Your task to perform on an android device: show emergency info Image 0: 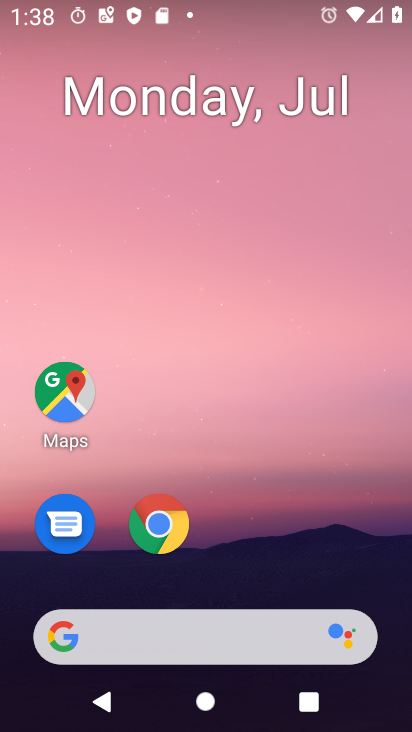
Step 0: press home button
Your task to perform on an android device: show emergency info Image 1: 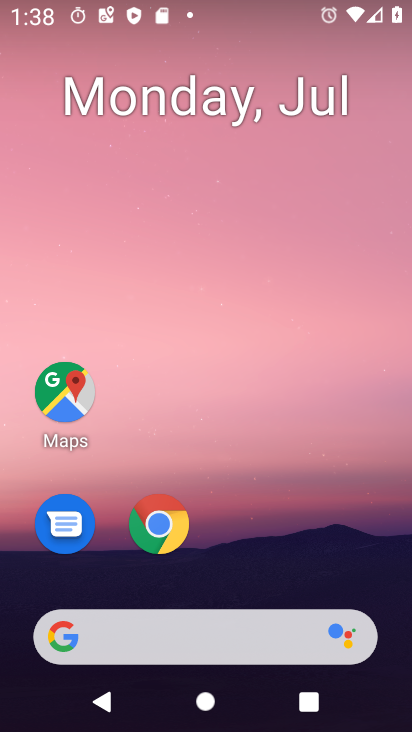
Step 1: drag from (309, 550) to (301, 157)
Your task to perform on an android device: show emergency info Image 2: 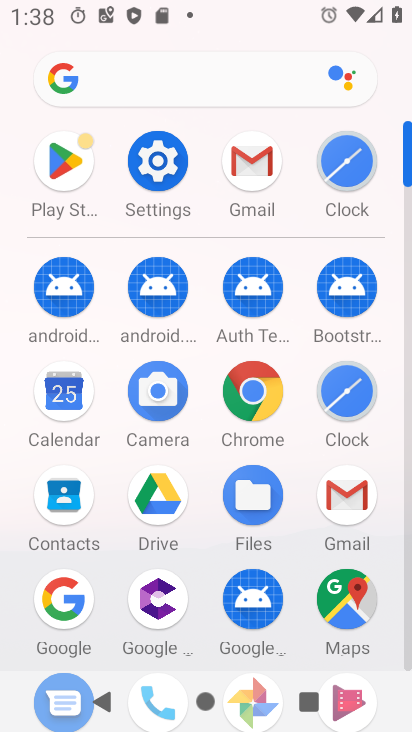
Step 2: click (160, 149)
Your task to perform on an android device: show emergency info Image 3: 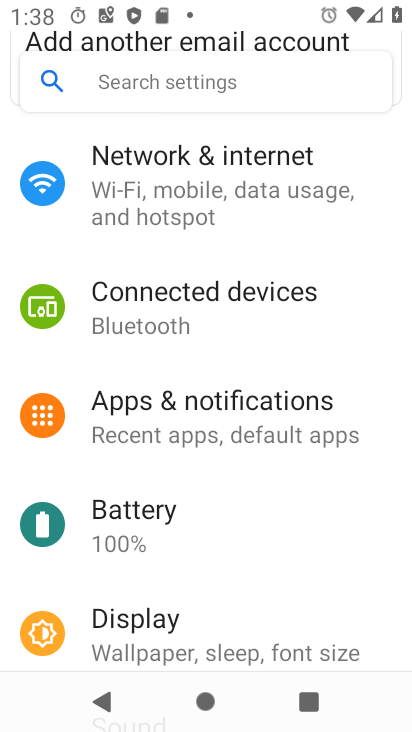
Step 3: drag from (205, 577) to (411, 151)
Your task to perform on an android device: show emergency info Image 4: 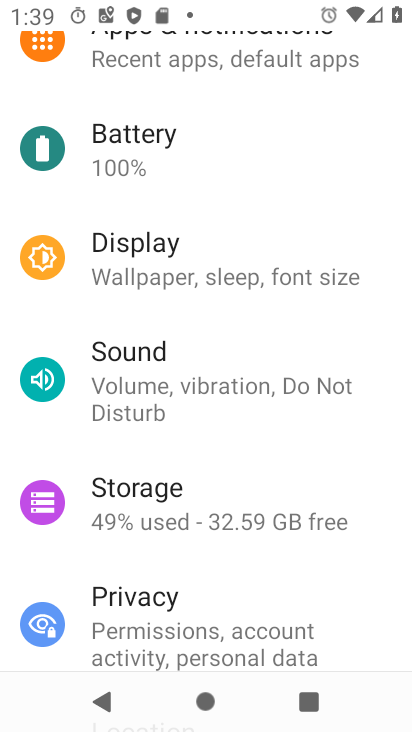
Step 4: drag from (167, 574) to (197, 192)
Your task to perform on an android device: show emergency info Image 5: 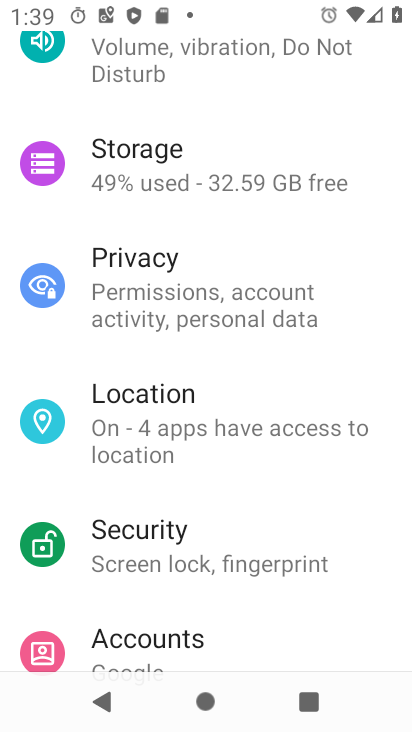
Step 5: drag from (228, 626) to (255, 216)
Your task to perform on an android device: show emergency info Image 6: 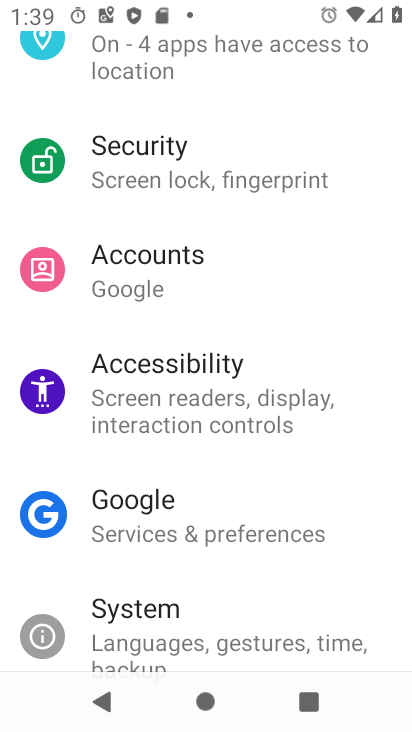
Step 6: drag from (221, 601) to (263, 206)
Your task to perform on an android device: show emergency info Image 7: 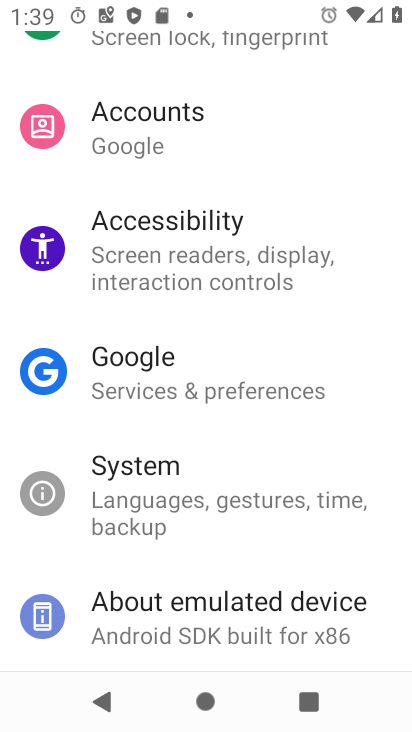
Step 7: click (159, 630)
Your task to perform on an android device: show emergency info Image 8: 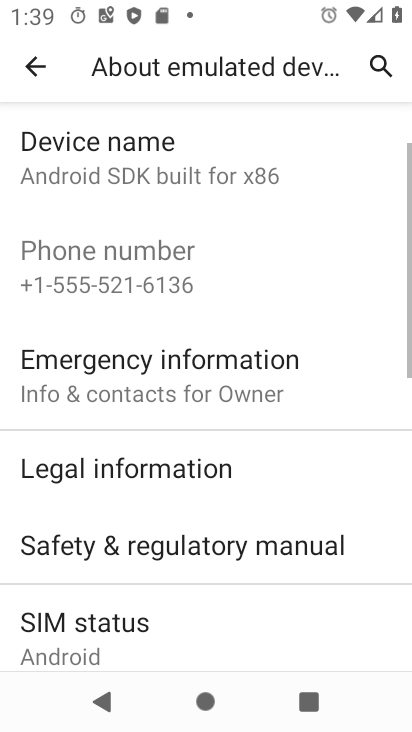
Step 8: click (140, 375)
Your task to perform on an android device: show emergency info Image 9: 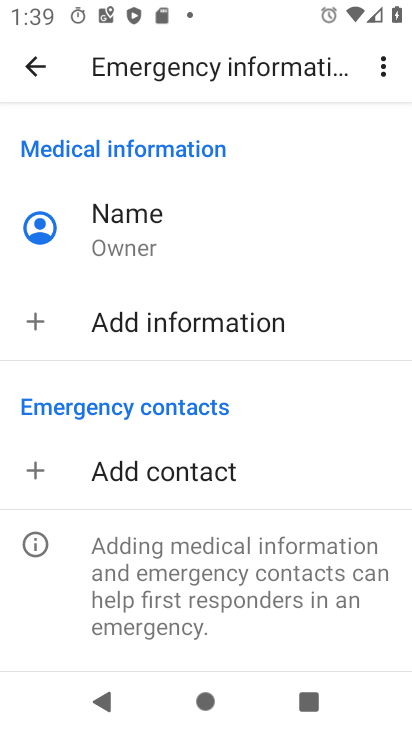
Step 9: task complete